Your task to perform on an android device: all mails in gmail Image 0: 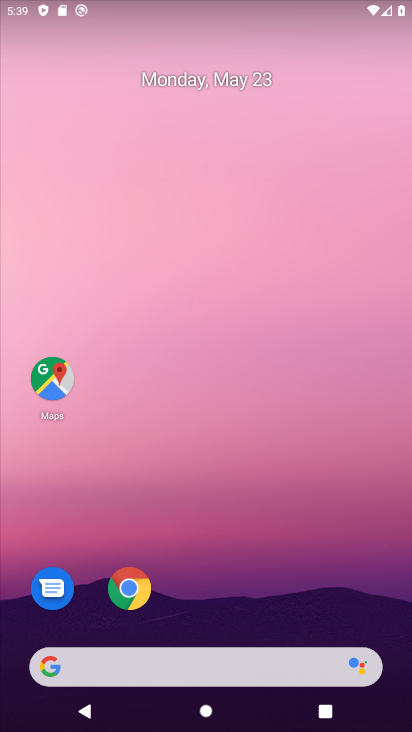
Step 0: drag from (245, 575) to (233, 26)
Your task to perform on an android device: all mails in gmail Image 1: 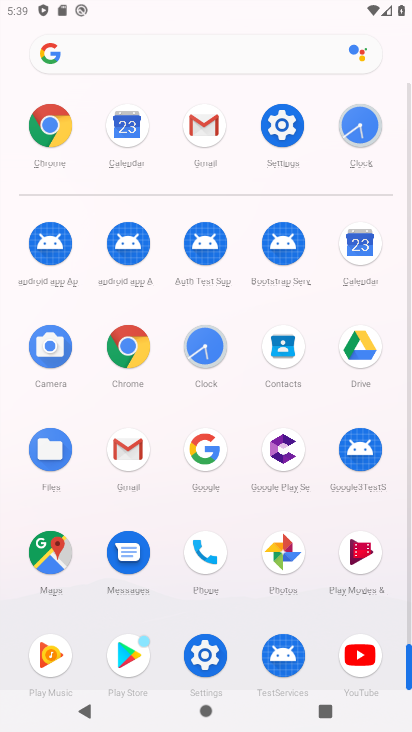
Step 1: drag from (16, 593) to (12, 214)
Your task to perform on an android device: all mails in gmail Image 2: 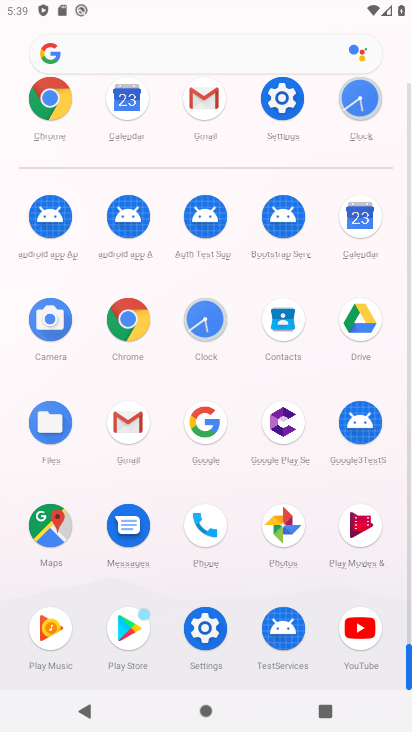
Step 2: click (126, 418)
Your task to perform on an android device: all mails in gmail Image 3: 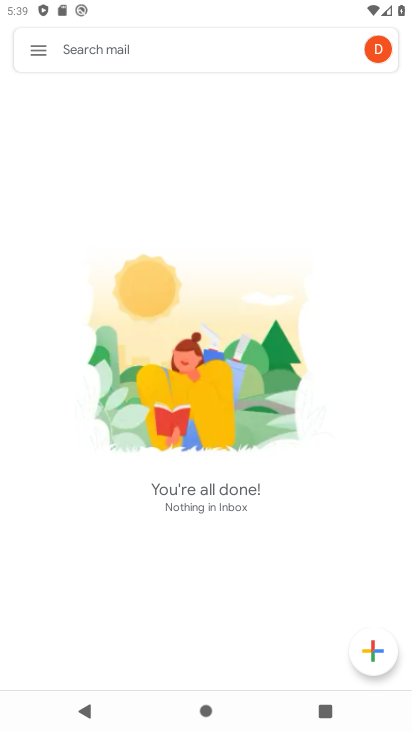
Step 3: click (29, 61)
Your task to perform on an android device: all mails in gmail Image 4: 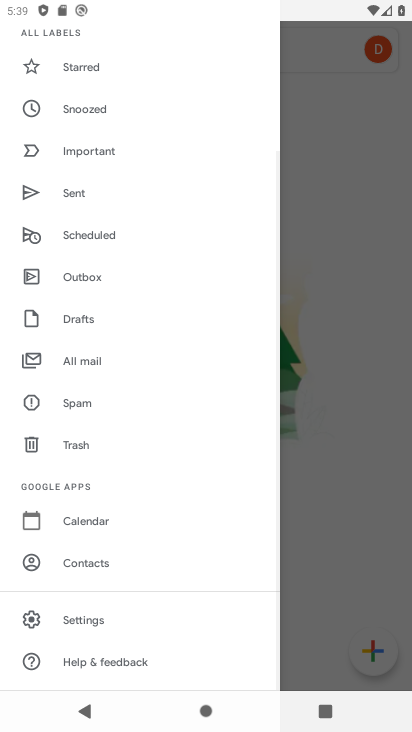
Step 4: click (78, 350)
Your task to perform on an android device: all mails in gmail Image 5: 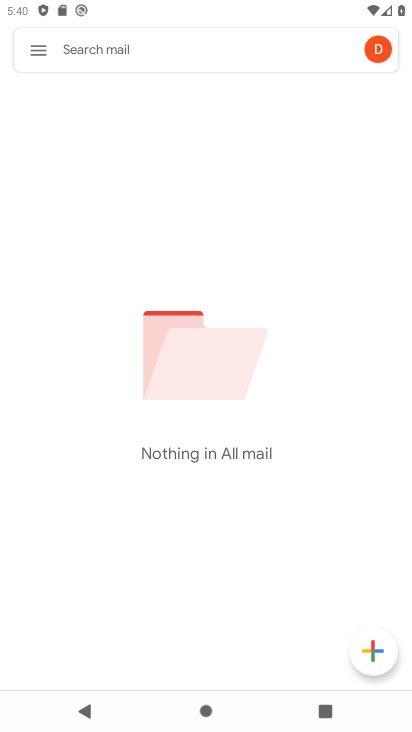
Step 5: task complete